Your task to perform on an android device: check data usage Image 0: 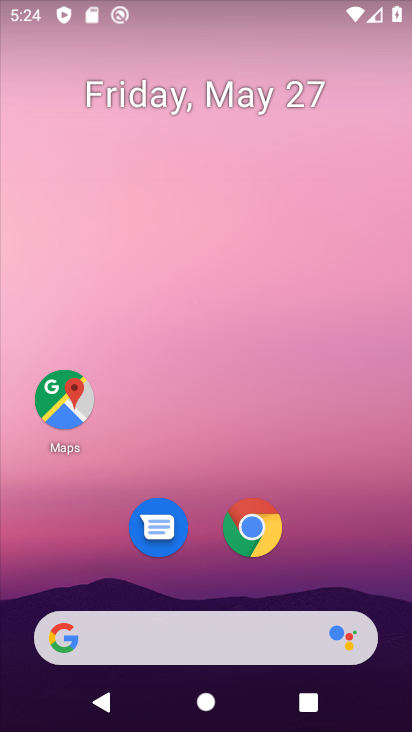
Step 0: drag from (288, 582) to (291, 77)
Your task to perform on an android device: check data usage Image 1: 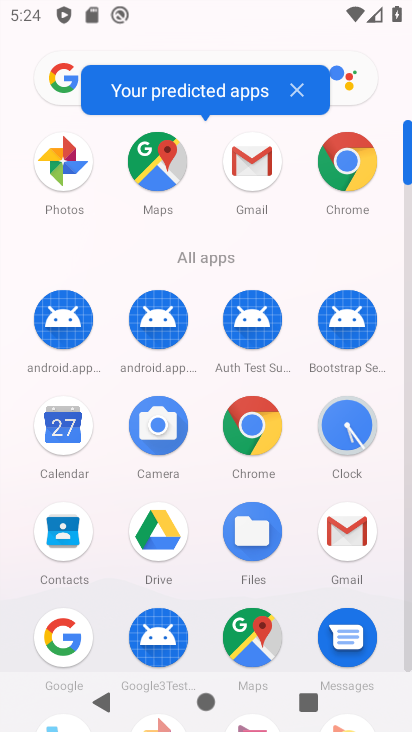
Step 1: drag from (301, 611) to (302, 221)
Your task to perform on an android device: check data usage Image 2: 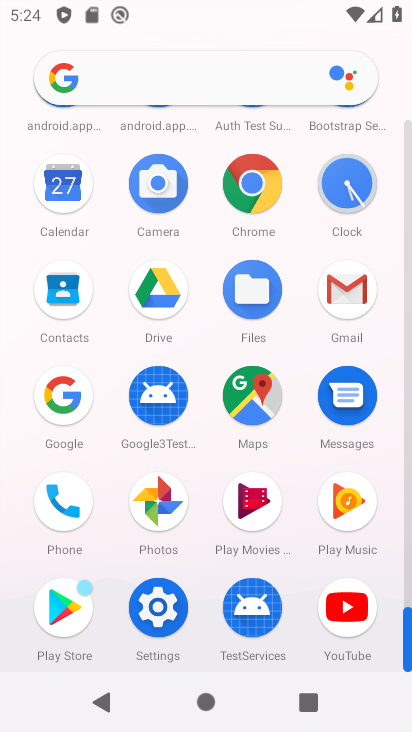
Step 2: click (164, 626)
Your task to perform on an android device: check data usage Image 3: 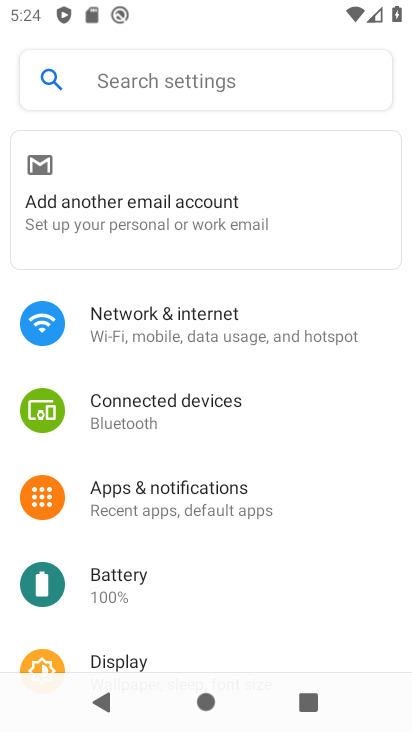
Step 3: click (222, 325)
Your task to perform on an android device: check data usage Image 4: 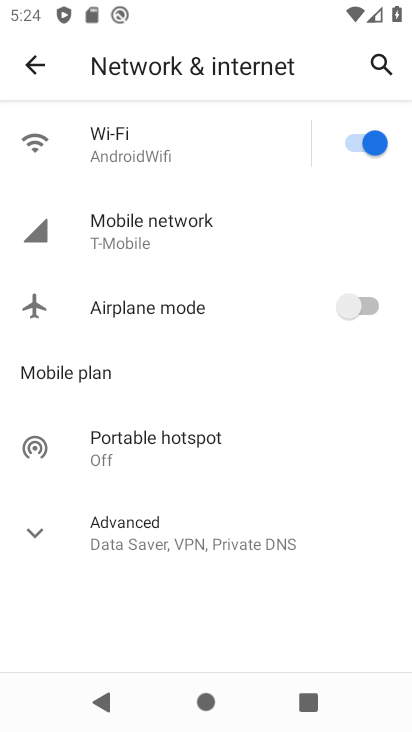
Step 4: click (169, 243)
Your task to perform on an android device: check data usage Image 5: 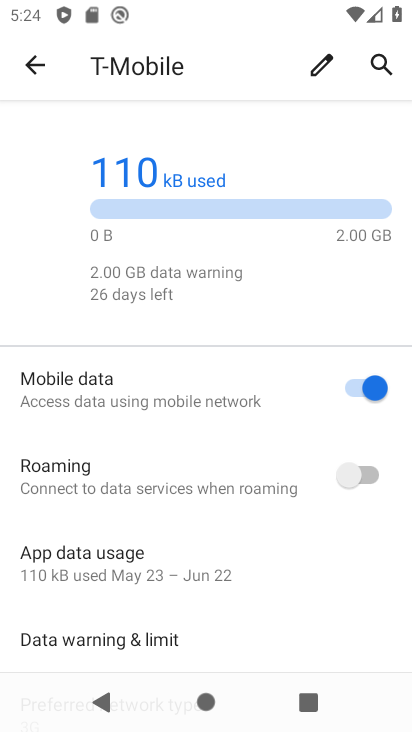
Step 5: click (133, 576)
Your task to perform on an android device: check data usage Image 6: 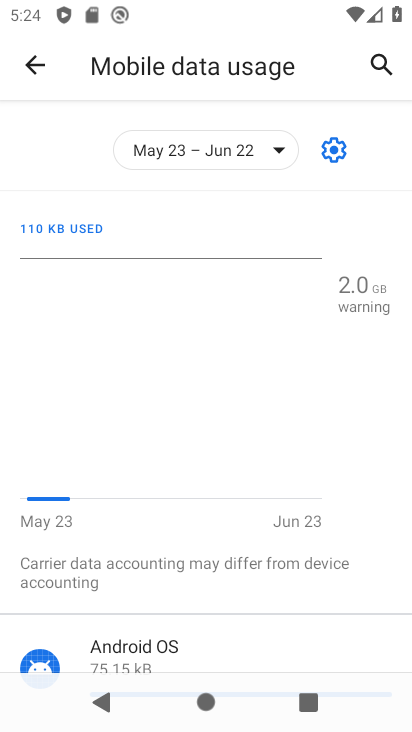
Step 6: task complete